Your task to perform on an android device: Open calendar and show me the first week of next month Image 0: 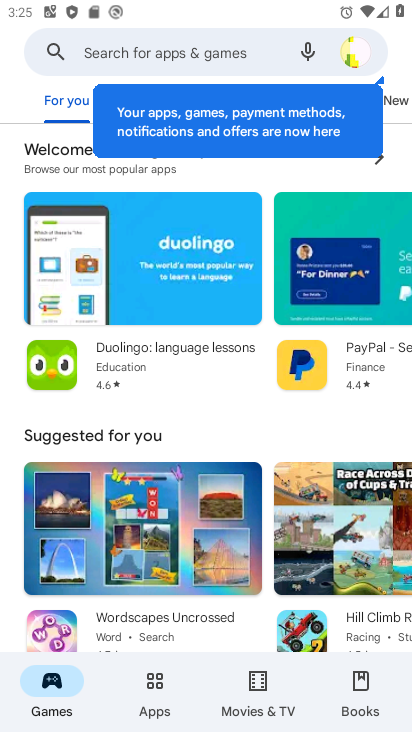
Step 0: press home button
Your task to perform on an android device: Open calendar and show me the first week of next month Image 1: 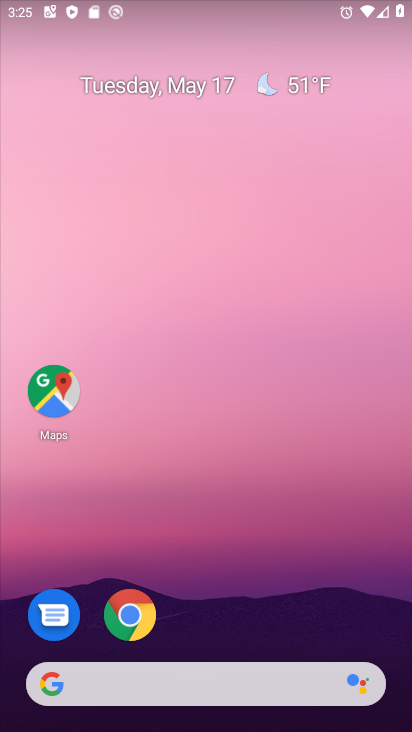
Step 1: drag from (220, 634) to (229, 84)
Your task to perform on an android device: Open calendar and show me the first week of next month Image 2: 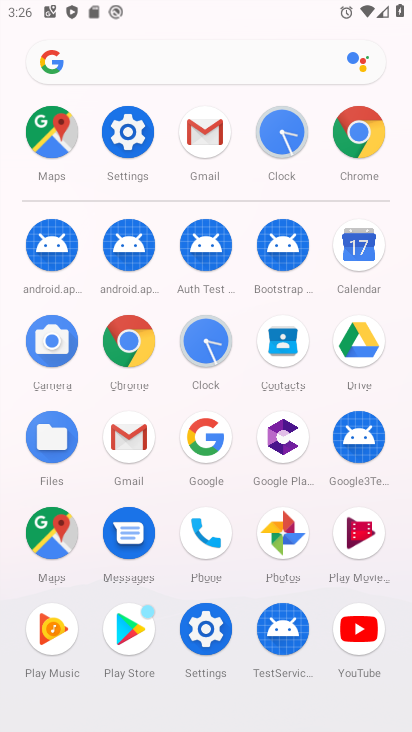
Step 2: click (355, 247)
Your task to perform on an android device: Open calendar and show me the first week of next month Image 3: 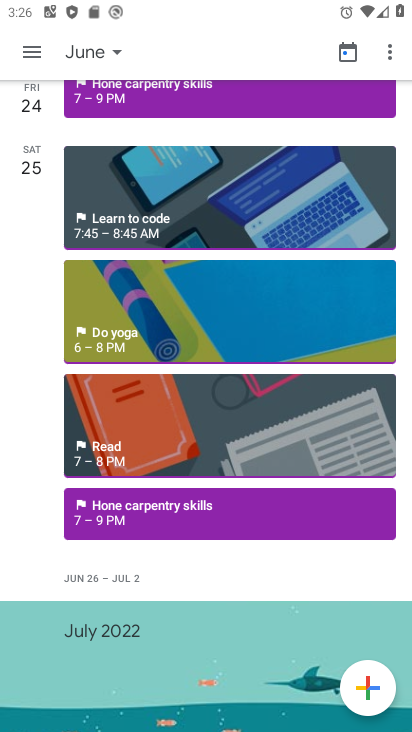
Step 3: click (22, 50)
Your task to perform on an android device: Open calendar and show me the first week of next month Image 4: 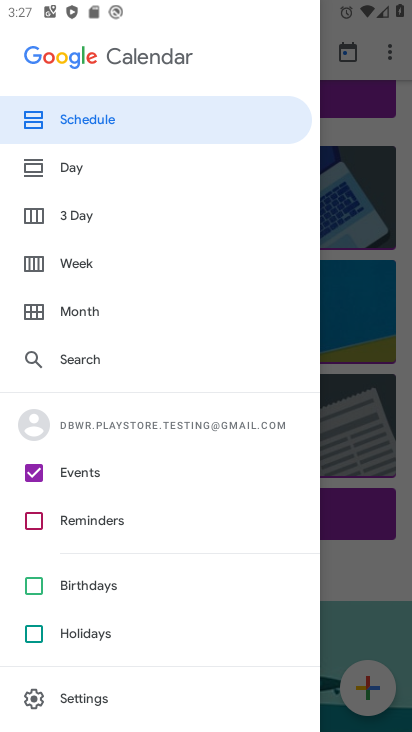
Step 4: click (68, 256)
Your task to perform on an android device: Open calendar and show me the first week of next month Image 5: 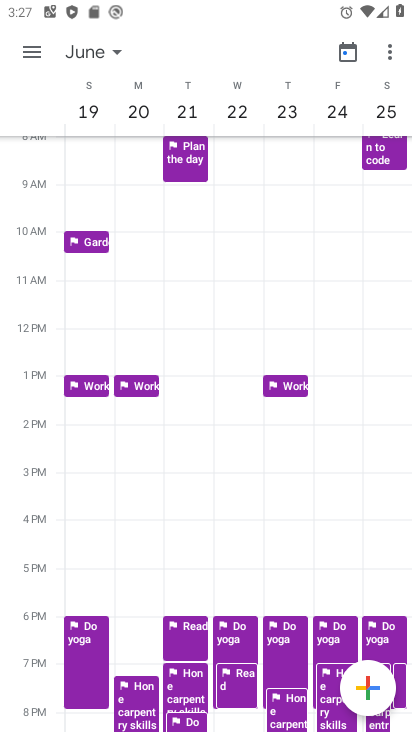
Step 5: drag from (88, 107) to (389, 104)
Your task to perform on an android device: Open calendar and show me the first week of next month Image 6: 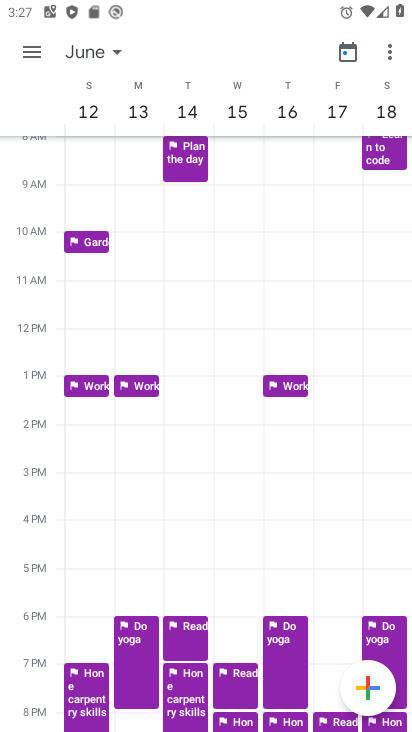
Step 6: drag from (73, 108) to (404, 116)
Your task to perform on an android device: Open calendar and show me the first week of next month Image 7: 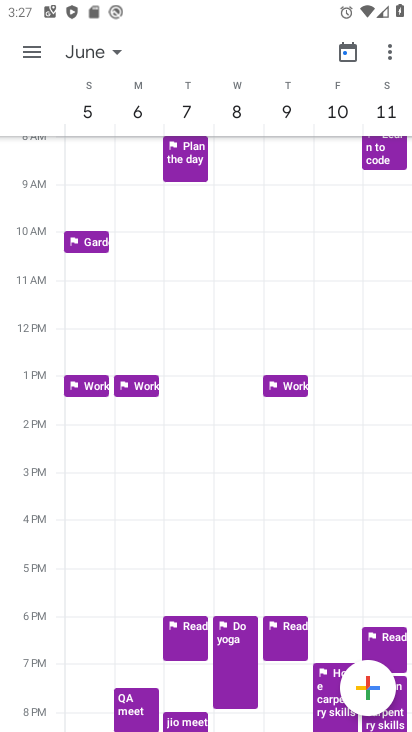
Step 7: drag from (77, 110) to (400, 125)
Your task to perform on an android device: Open calendar and show me the first week of next month Image 8: 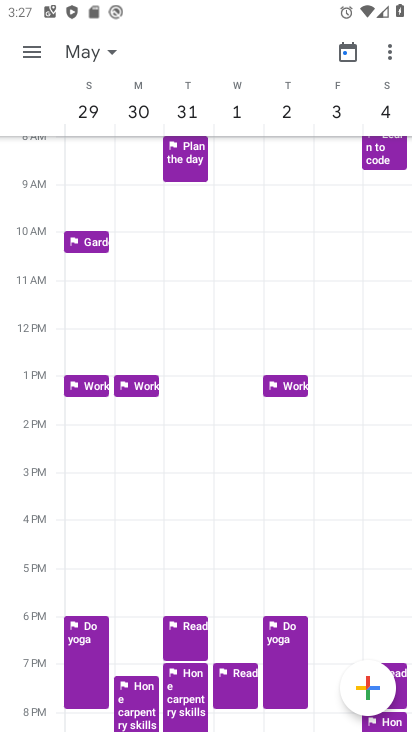
Step 8: click (238, 107)
Your task to perform on an android device: Open calendar and show me the first week of next month Image 9: 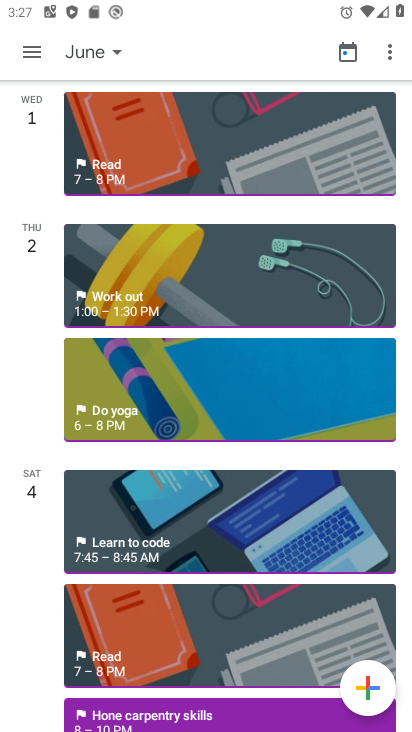
Step 9: task complete